Your task to perform on an android device: Is it going to rain today? Image 0: 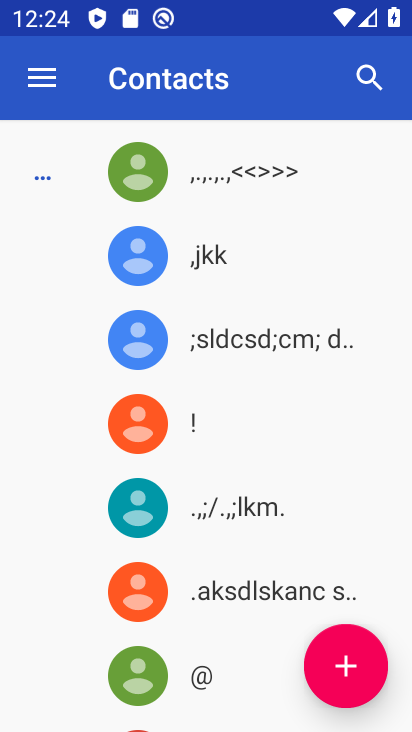
Step 0: press home button
Your task to perform on an android device: Is it going to rain today? Image 1: 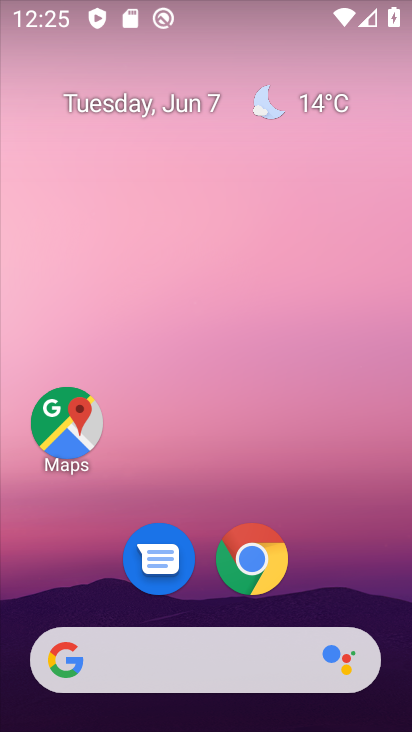
Step 1: click (319, 112)
Your task to perform on an android device: Is it going to rain today? Image 2: 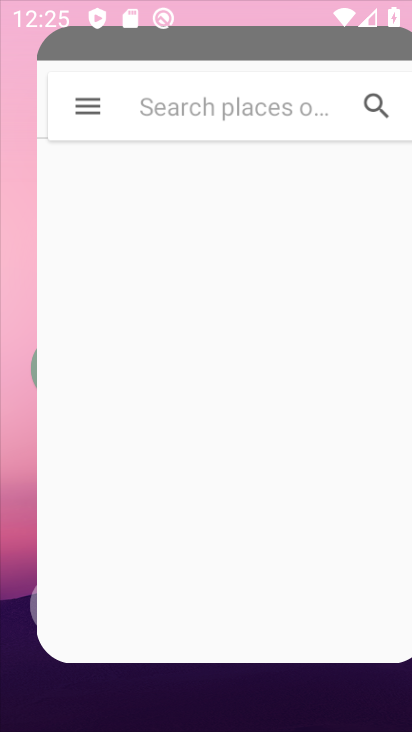
Step 2: click (266, 117)
Your task to perform on an android device: Is it going to rain today? Image 3: 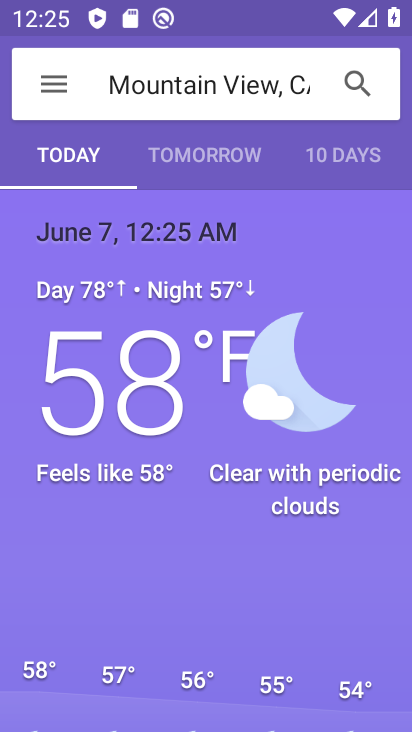
Step 3: task complete